Your task to perform on an android device: toggle javascript in the chrome app Image 0: 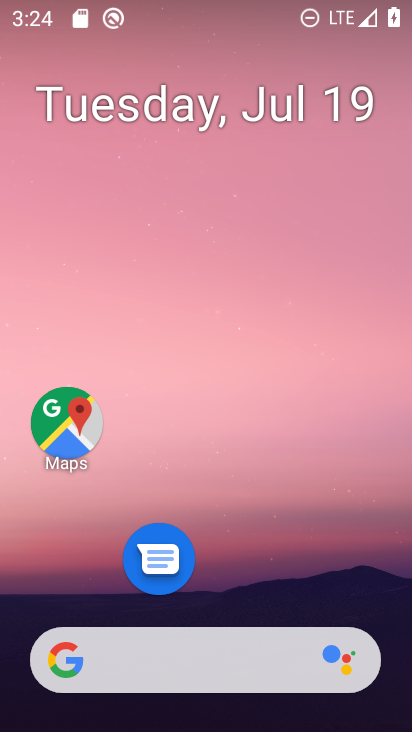
Step 0: drag from (220, 583) to (227, 188)
Your task to perform on an android device: toggle javascript in the chrome app Image 1: 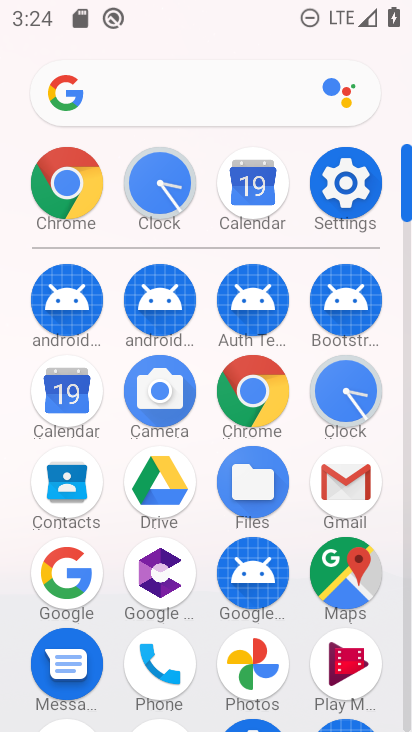
Step 1: click (262, 399)
Your task to perform on an android device: toggle javascript in the chrome app Image 2: 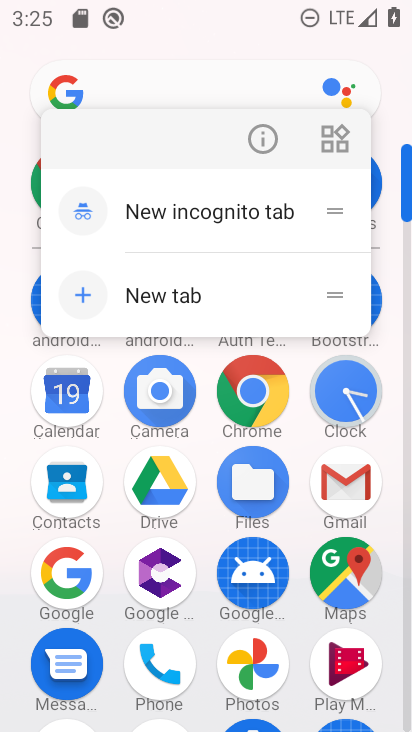
Step 2: click (243, 424)
Your task to perform on an android device: toggle javascript in the chrome app Image 3: 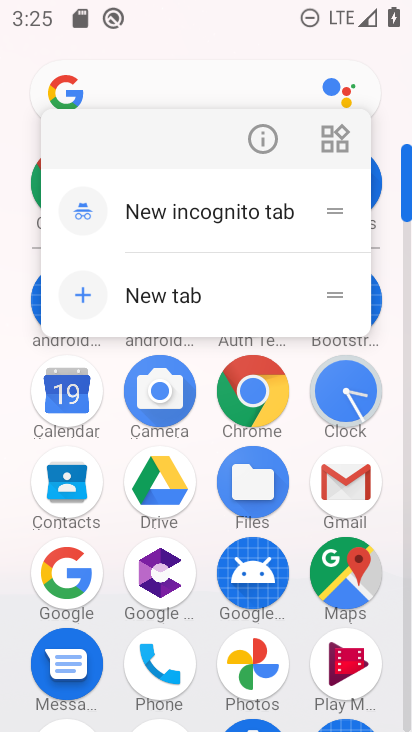
Step 3: click (268, 406)
Your task to perform on an android device: toggle javascript in the chrome app Image 4: 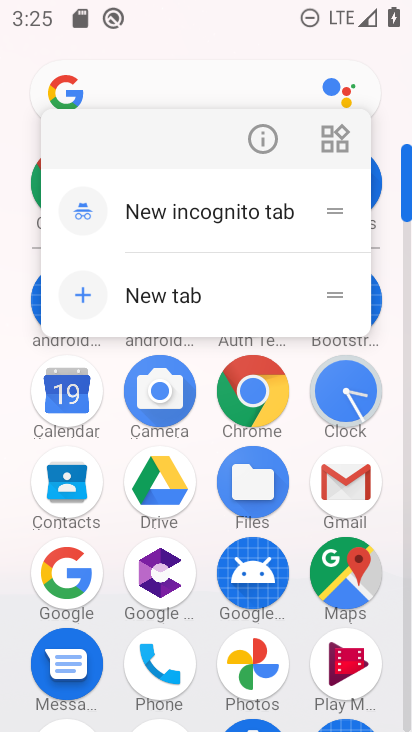
Step 4: click (267, 433)
Your task to perform on an android device: toggle javascript in the chrome app Image 5: 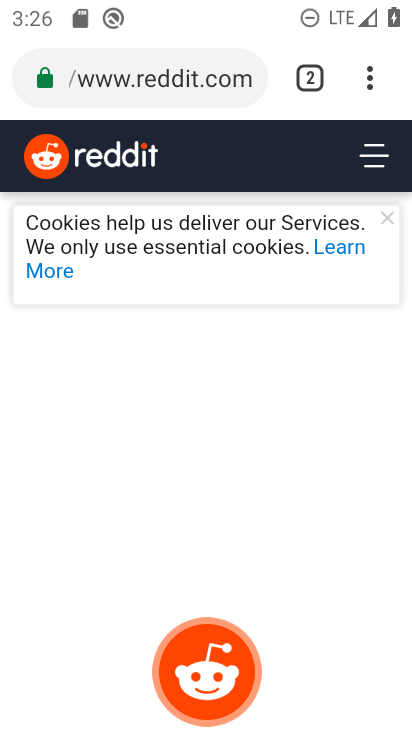
Step 5: click (378, 78)
Your task to perform on an android device: toggle javascript in the chrome app Image 6: 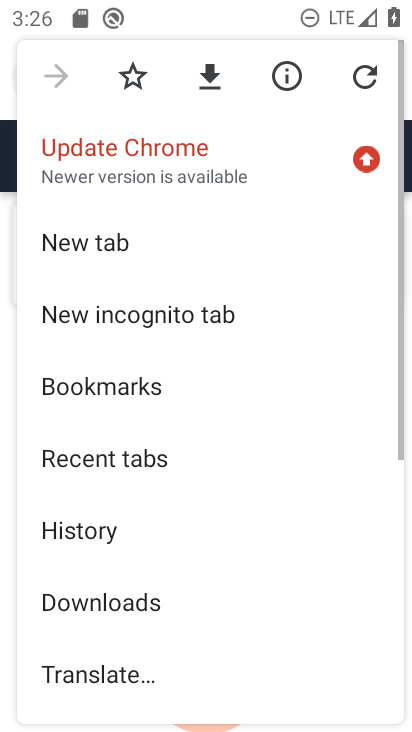
Step 6: drag from (174, 592) to (182, 138)
Your task to perform on an android device: toggle javascript in the chrome app Image 7: 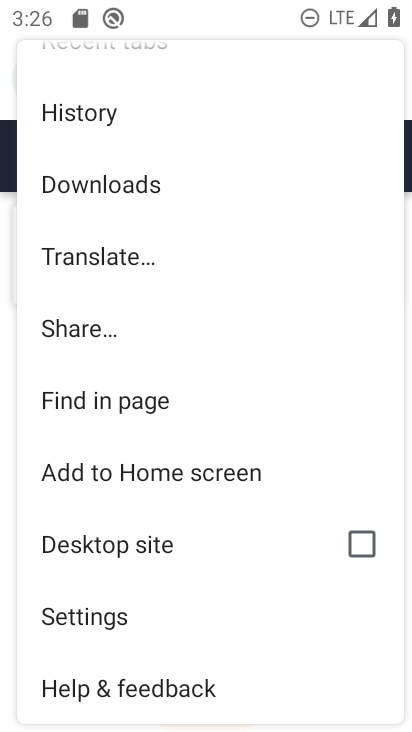
Step 7: click (131, 623)
Your task to perform on an android device: toggle javascript in the chrome app Image 8: 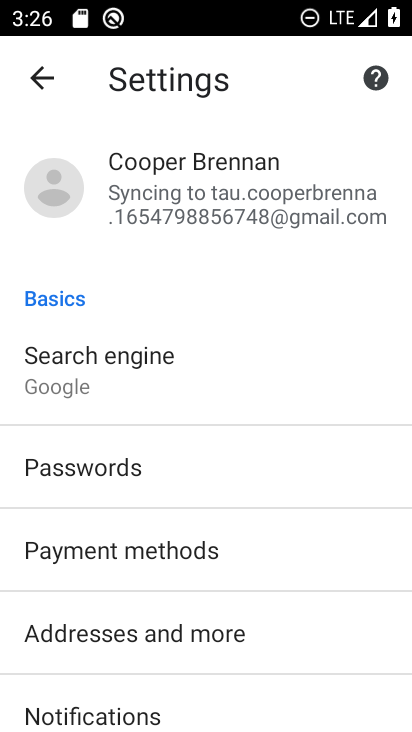
Step 8: drag from (206, 592) to (214, 309)
Your task to perform on an android device: toggle javascript in the chrome app Image 9: 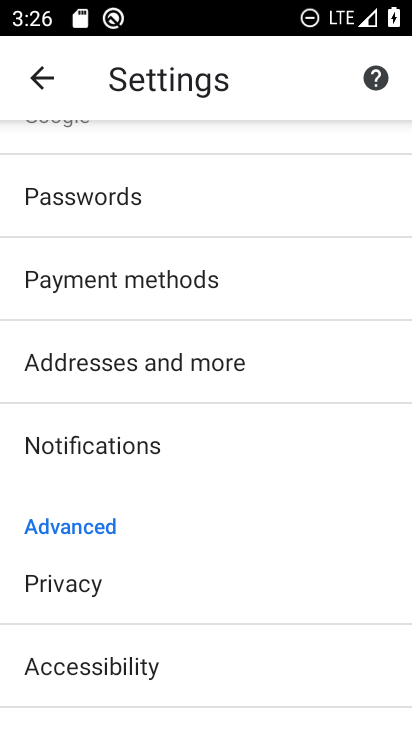
Step 9: drag from (84, 627) to (105, 336)
Your task to perform on an android device: toggle javascript in the chrome app Image 10: 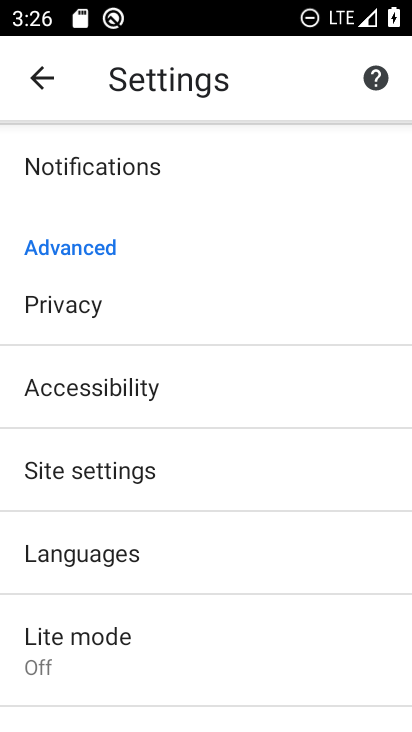
Step 10: click (98, 477)
Your task to perform on an android device: toggle javascript in the chrome app Image 11: 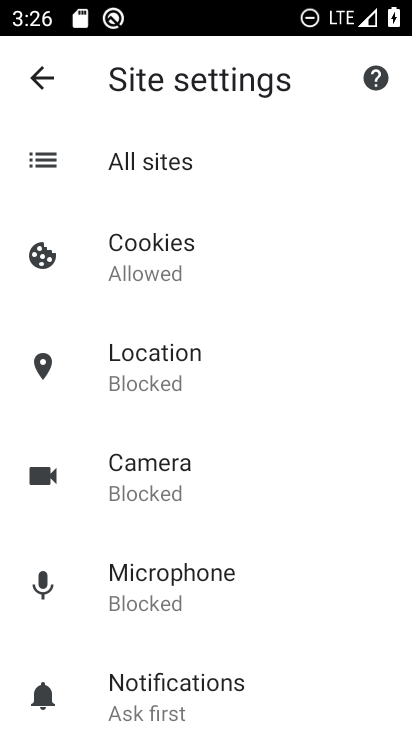
Step 11: drag from (177, 520) to (181, 325)
Your task to perform on an android device: toggle javascript in the chrome app Image 12: 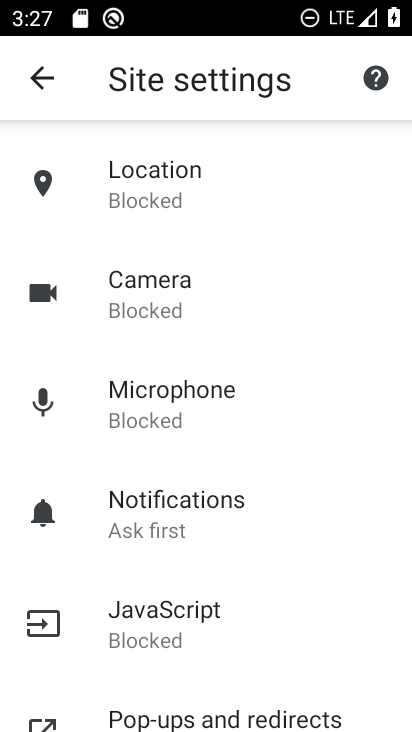
Step 12: drag from (228, 563) to (213, 285)
Your task to perform on an android device: toggle javascript in the chrome app Image 13: 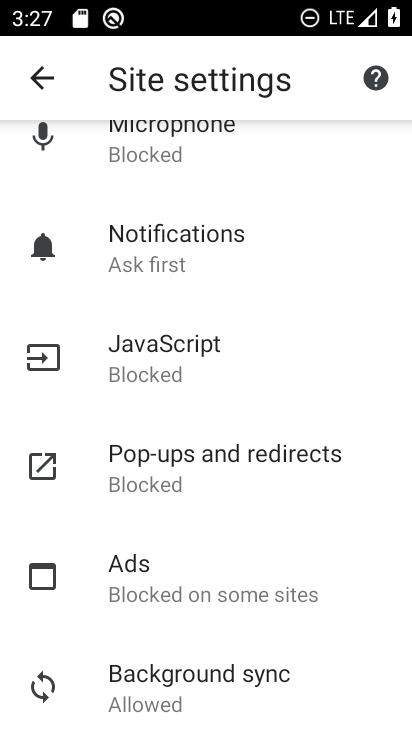
Step 13: drag from (155, 565) to (172, 396)
Your task to perform on an android device: toggle javascript in the chrome app Image 14: 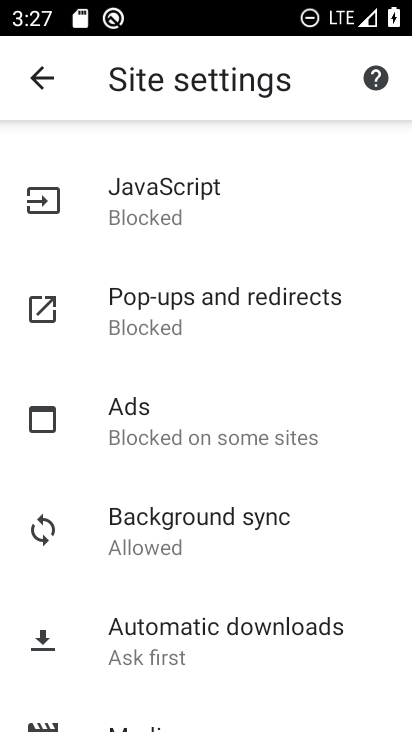
Step 14: drag from (188, 587) to (203, 330)
Your task to perform on an android device: toggle javascript in the chrome app Image 15: 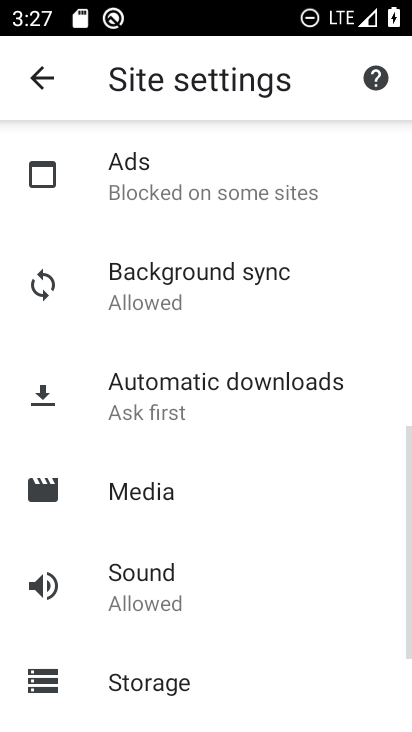
Step 15: drag from (198, 549) to (232, 342)
Your task to perform on an android device: toggle javascript in the chrome app Image 16: 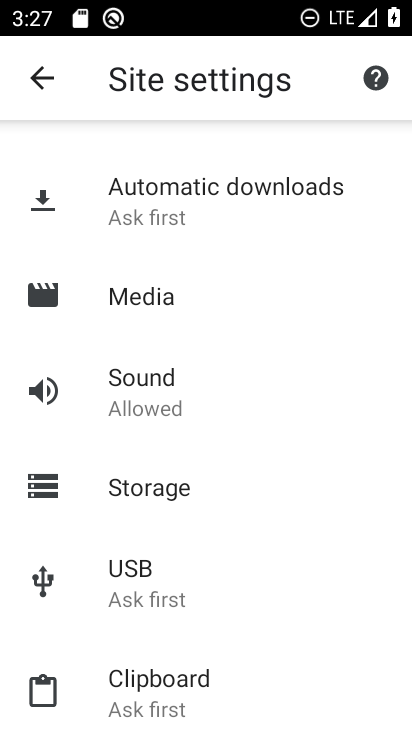
Step 16: drag from (218, 355) to (164, 729)
Your task to perform on an android device: toggle javascript in the chrome app Image 17: 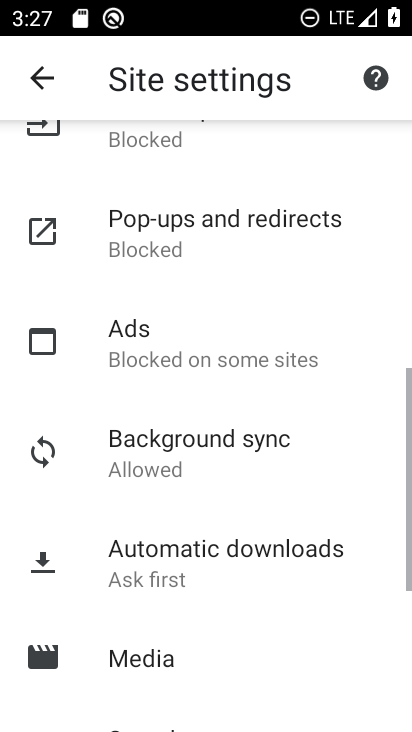
Step 17: drag from (207, 386) to (206, 720)
Your task to perform on an android device: toggle javascript in the chrome app Image 18: 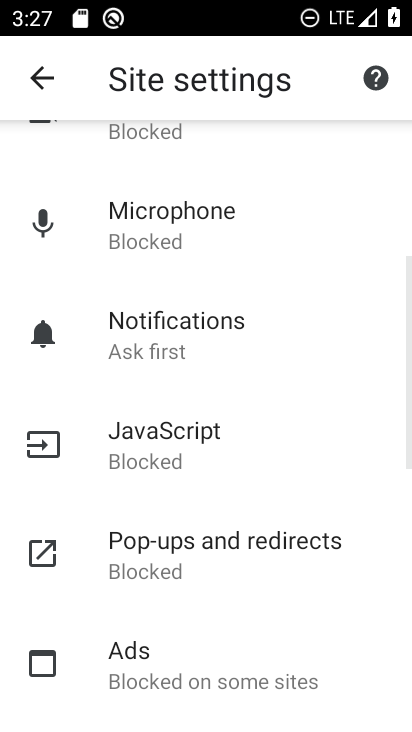
Step 18: click (234, 465)
Your task to perform on an android device: toggle javascript in the chrome app Image 19: 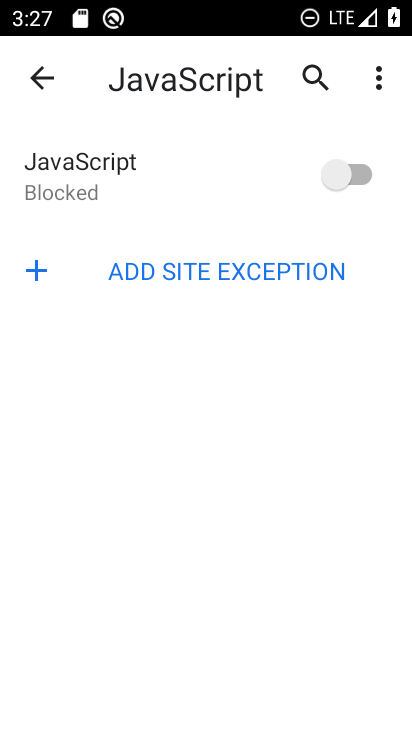
Step 19: click (351, 183)
Your task to perform on an android device: toggle javascript in the chrome app Image 20: 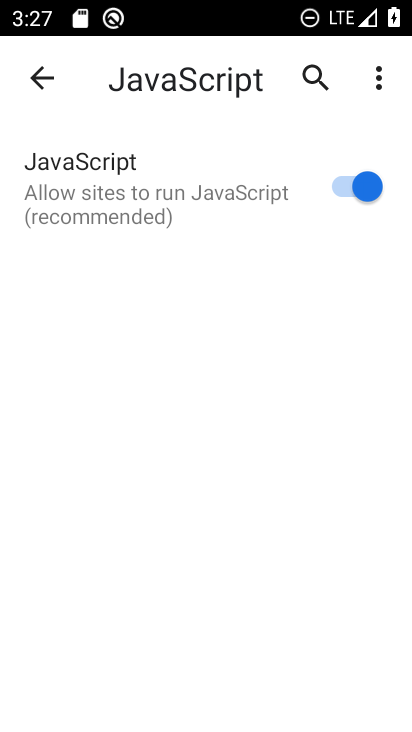
Step 20: task complete